Your task to perform on an android device: Go to Yahoo.com Image 0: 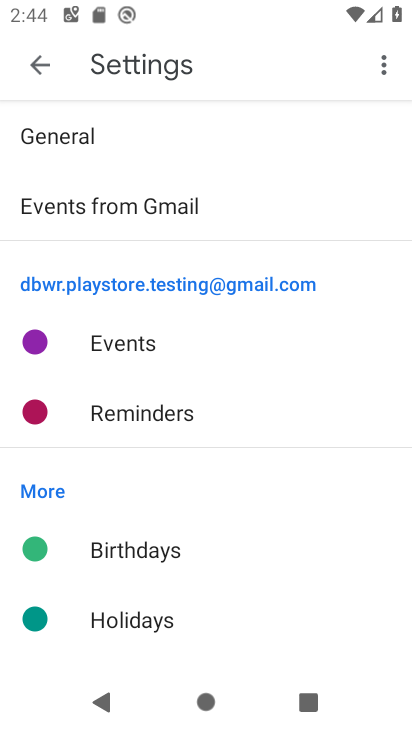
Step 0: press home button
Your task to perform on an android device: Go to Yahoo.com Image 1: 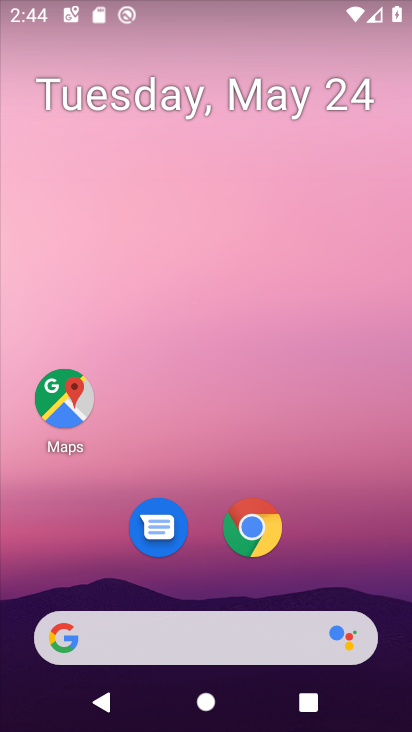
Step 1: click (260, 522)
Your task to perform on an android device: Go to Yahoo.com Image 2: 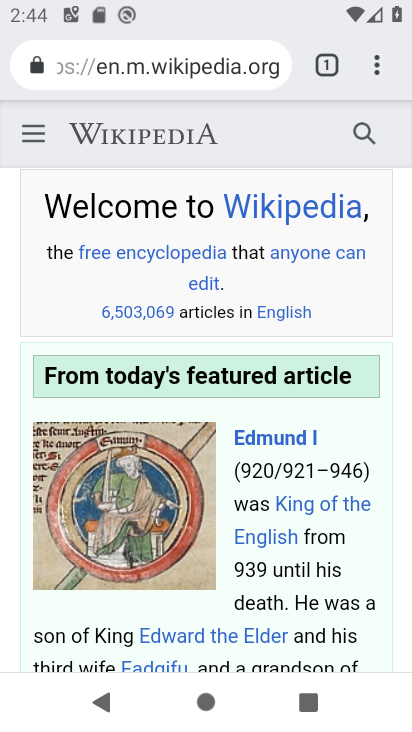
Step 2: click (148, 61)
Your task to perform on an android device: Go to Yahoo.com Image 3: 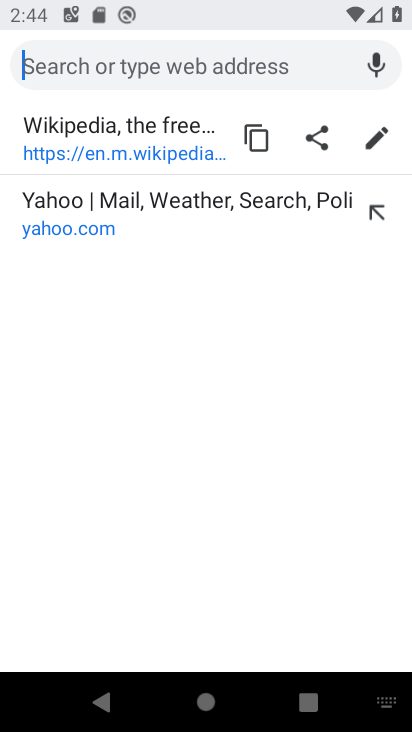
Step 3: click (71, 217)
Your task to perform on an android device: Go to Yahoo.com Image 4: 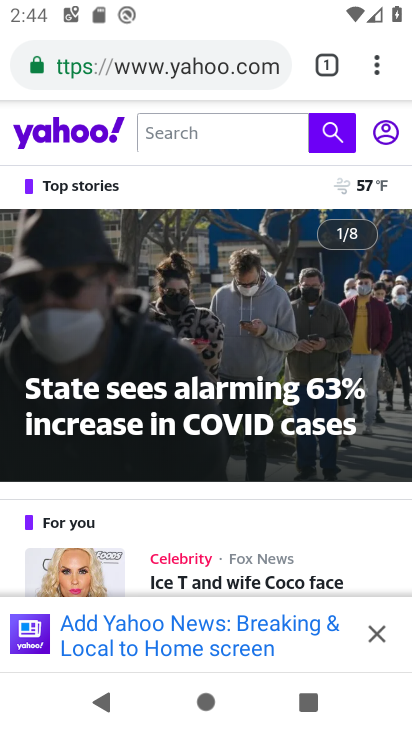
Step 4: task complete